Your task to perform on an android device: toggle javascript in the chrome app Image 0: 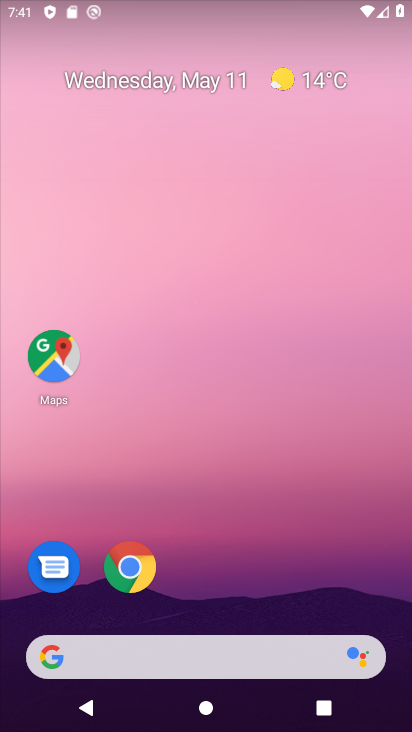
Step 0: click (138, 585)
Your task to perform on an android device: toggle javascript in the chrome app Image 1: 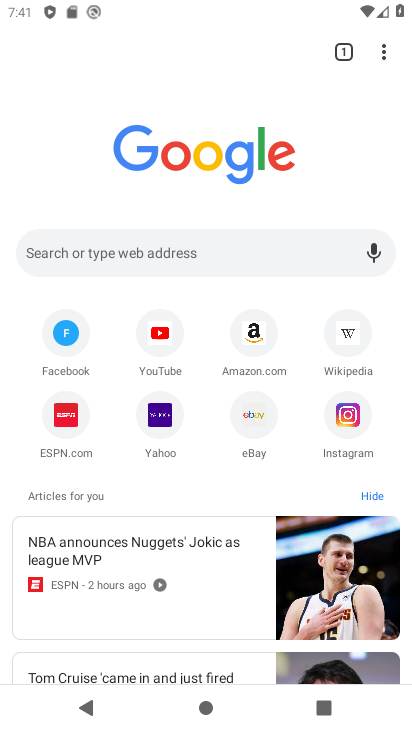
Step 1: click (383, 52)
Your task to perform on an android device: toggle javascript in the chrome app Image 2: 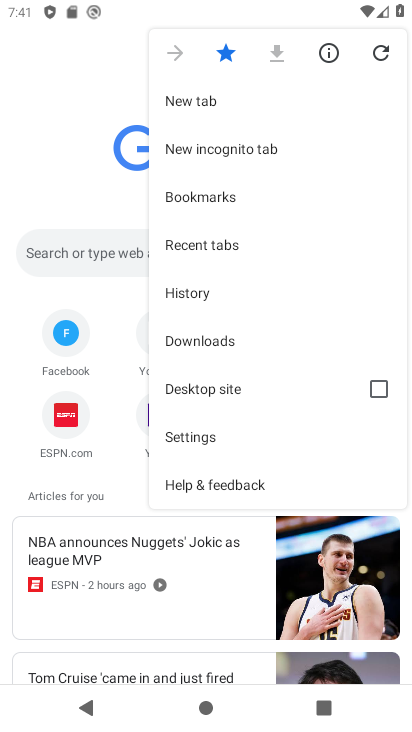
Step 2: click (204, 446)
Your task to perform on an android device: toggle javascript in the chrome app Image 3: 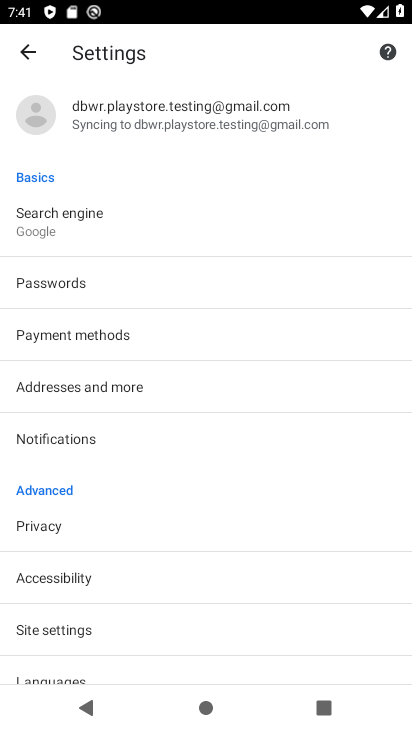
Step 3: click (99, 627)
Your task to perform on an android device: toggle javascript in the chrome app Image 4: 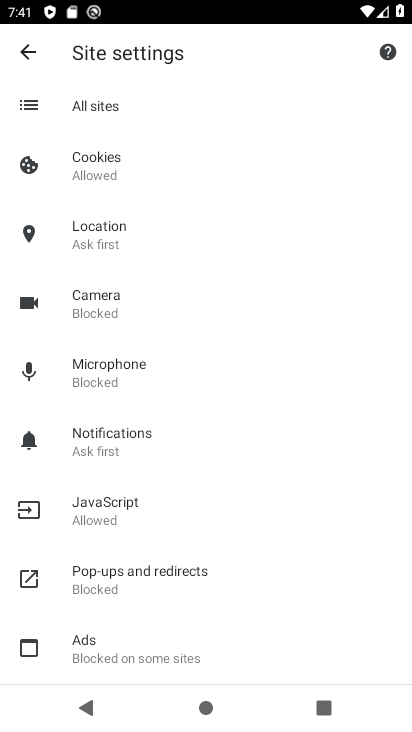
Step 4: click (93, 521)
Your task to perform on an android device: toggle javascript in the chrome app Image 5: 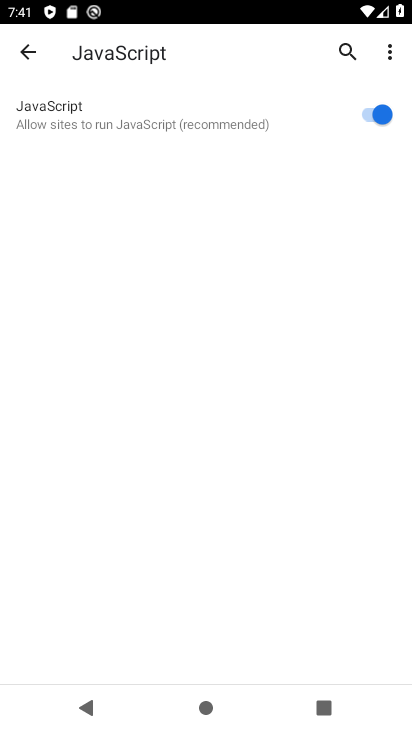
Step 5: click (363, 109)
Your task to perform on an android device: toggle javascript in the chrome app Image 6: 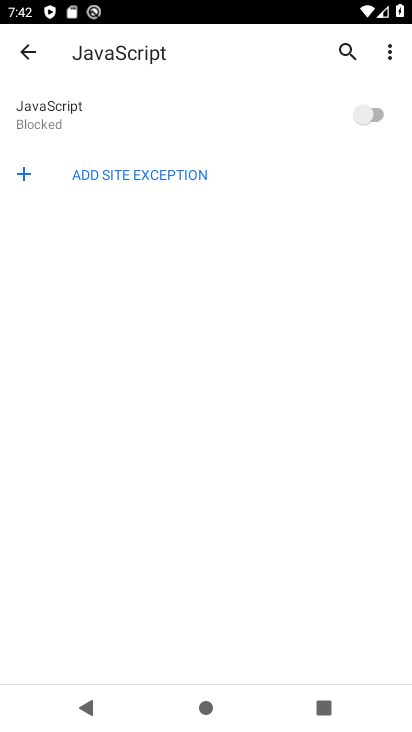
Step 6: task complete